Your task to perform on an android device: Open Chrome and go to the settings page Image 0: 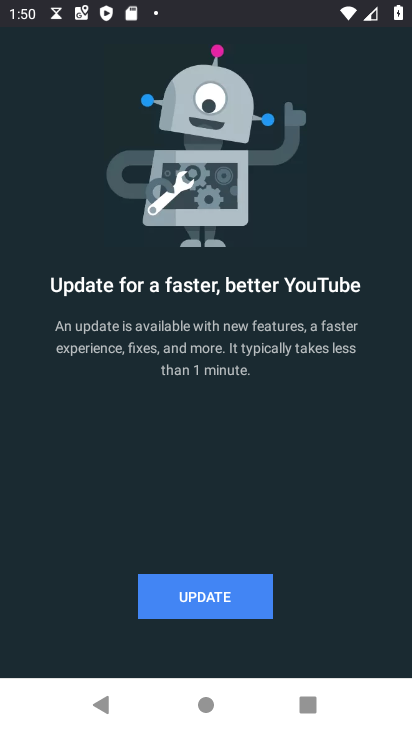
Step 0: press home button
Your task to perform on an android device: Open Chrome and go to the settings page Image 1: 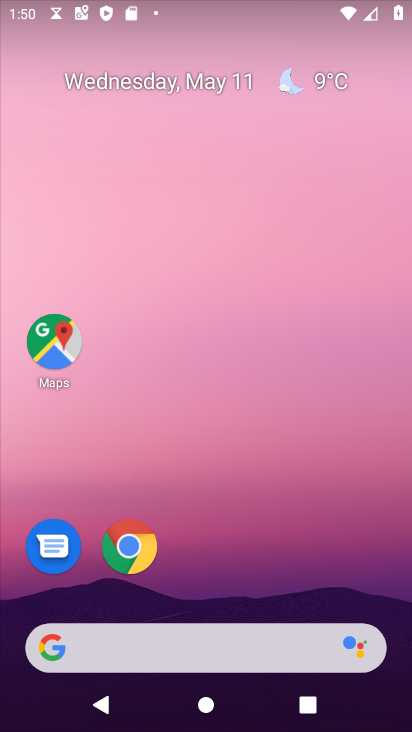
Step 1: drag from (402, 624) to (368, 9)
Your task to perform on an android device: Open Chrome and go to the settings page Image 2: 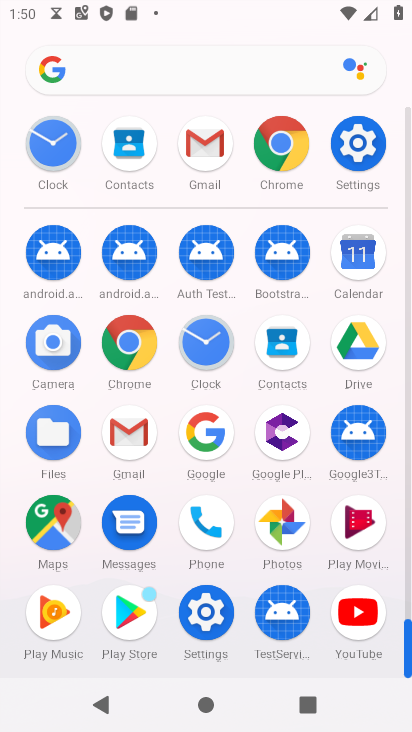
Step 2: click (114, 359)
Your task to perform on an android device: Open Chrome and go to the settings page Image 3: 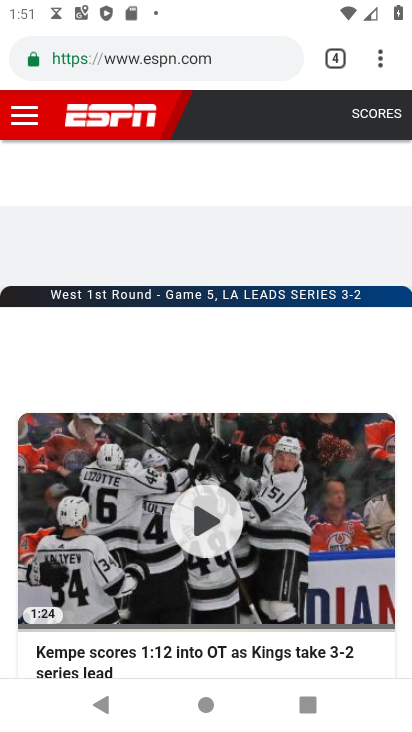
Step 3: click (378, 65)
Your task to perform on an android device: Open Chrome and go to the settings page Image 4: 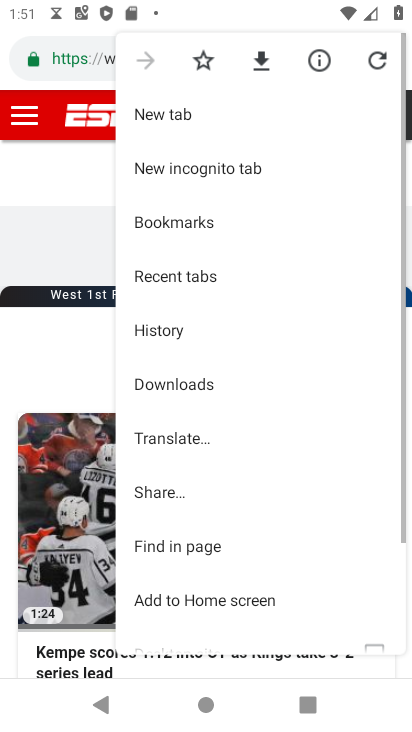
Step 4: drag from (266, 602) to (270, 162)
Your task to perform on an android device: Open Chrome and go to the settings page Image 5: 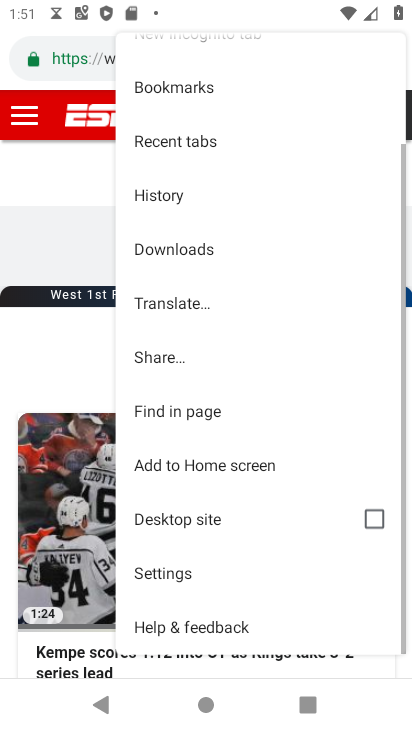
Step 5: click (205, 581)
Your task to perform on an android device: Open Chrome and go to the settings page Image 6: 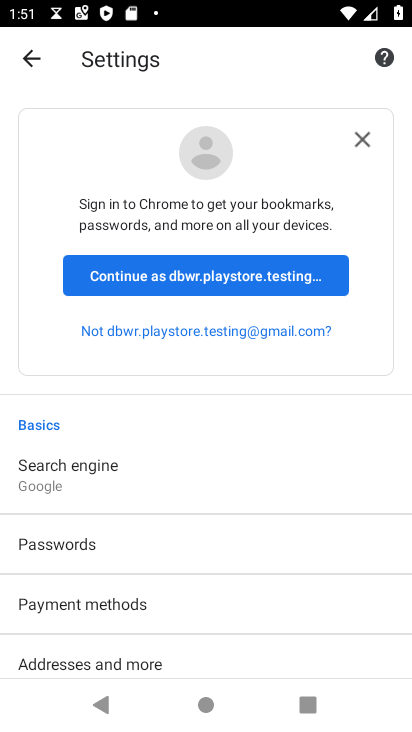
Step 6: task complete